Your task to perform on an android device: turn on notifications settings in the gmail app Image 0: 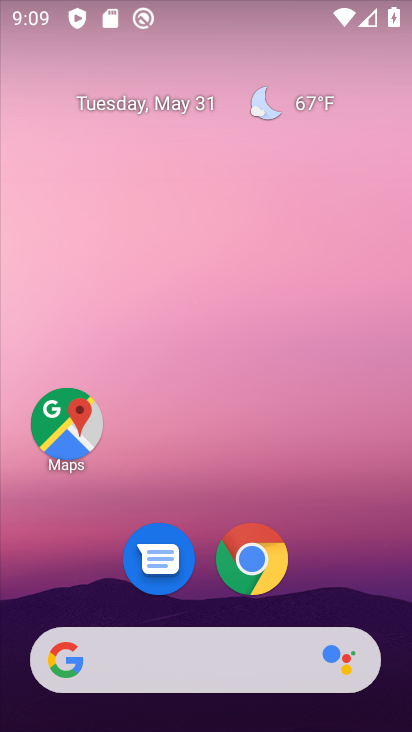
Step 0: drag from (310, 576) to (290, 127)
Your task to perform on an android device: turn on notifications settings in the gmail app Image 1: 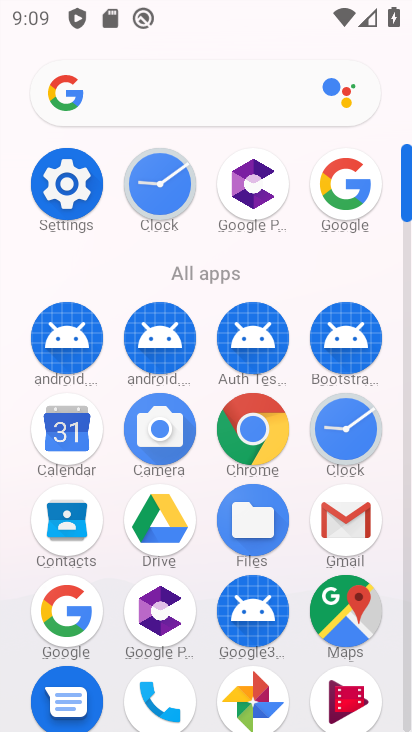
Step 1: click (336, 518)
Your task to perform on an android device: turn on notifications settings in the gmail app Image 2: 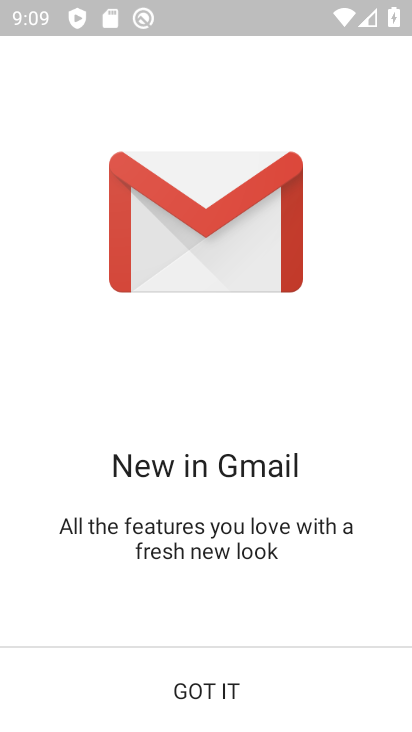
Step 2: click (204, 686)
Your task to perform on an android device: turn on notifications settings in the gmail app Image 3: 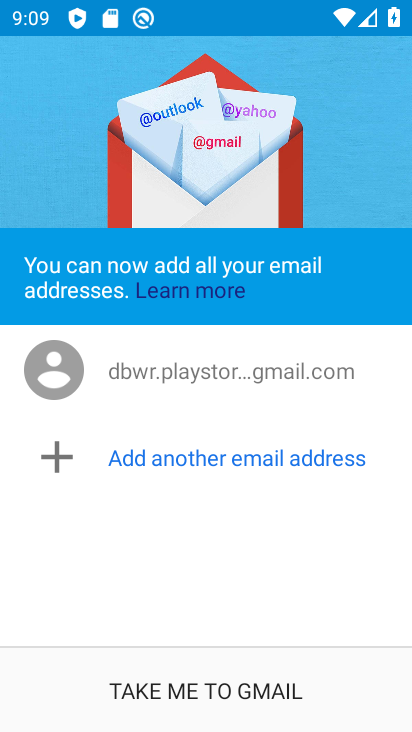
Step 3: click (204, 673)
Your task to perform on an android device: turn on notifications settings in the gmail app Image 4: 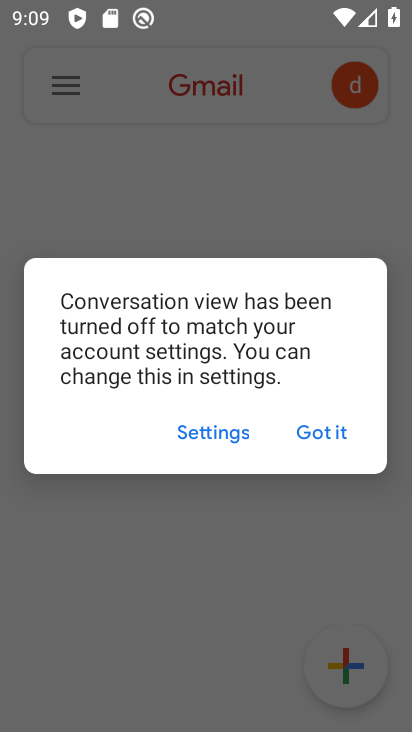
Step 4: click (209, 438)
Your task to perform on an android device: turn on notifications settings in the gmail app Image 5: 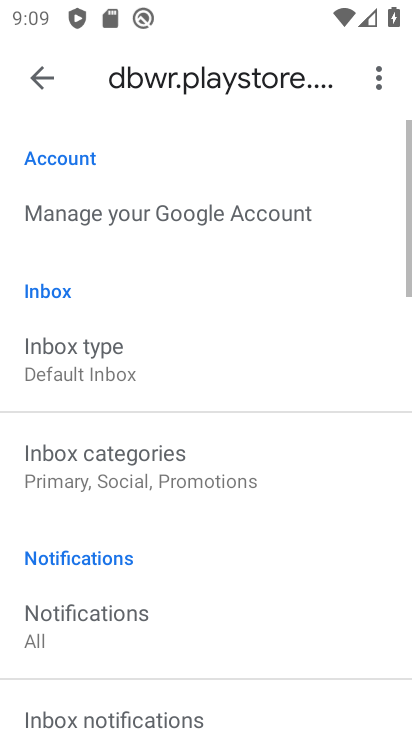
Step 5: click (48, 621)
Your task to perform on an android device: turn on notifications settings in the gmail app Image 6: 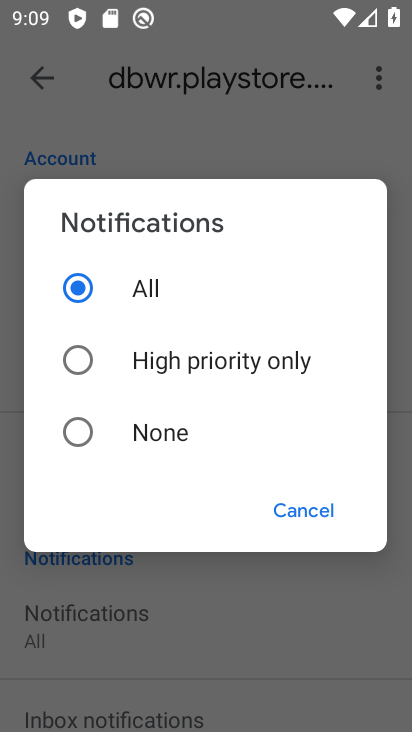
Step 6: task complete